Your task to perform on an android device: turn vacation reply on in the gmail app Image 0: 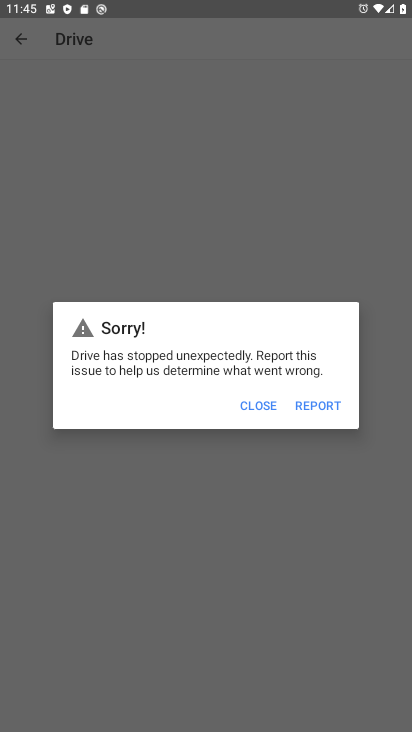
Step 0: drag from (306, 585) to (179, 96)
Your task to perform on an android device: turn vacation reply on in the gmail app Image 1: 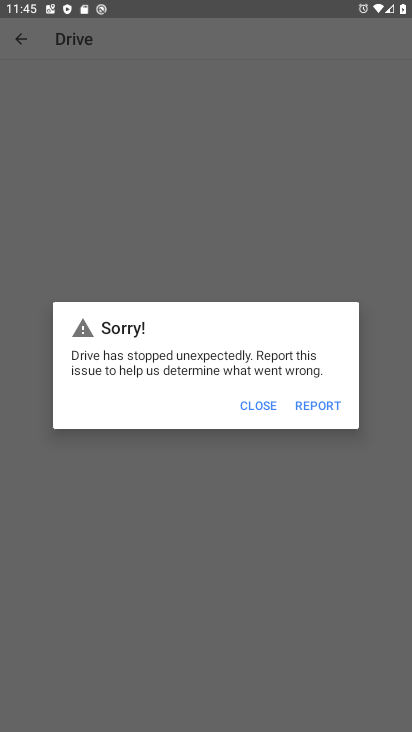
Step 1: press home button
Your task to perform on an android device: turn vacation reply on in the gmail app Image 2: 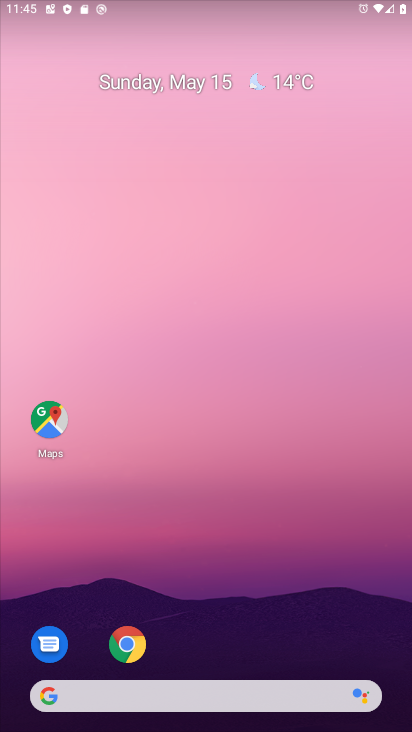
Step 2: drag from (284, 611) to (157, 107)
Your task to perform on an android device: turn vacation reply on in the gmail app Image 3: 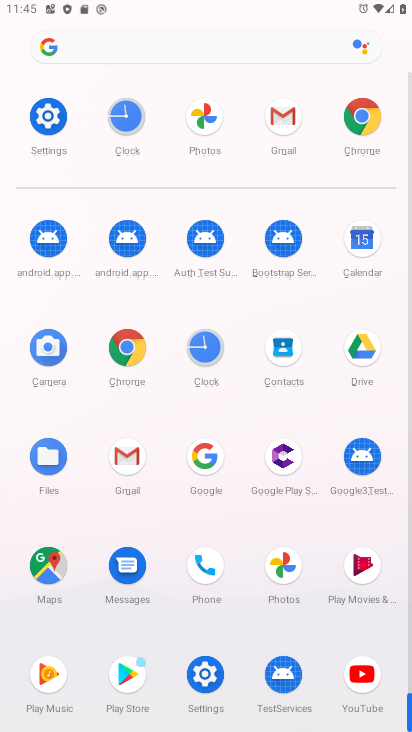
Step 3: click (117, 462)
Your task to perform on an android device: turn vacation reply on in the gmail app Image 4: 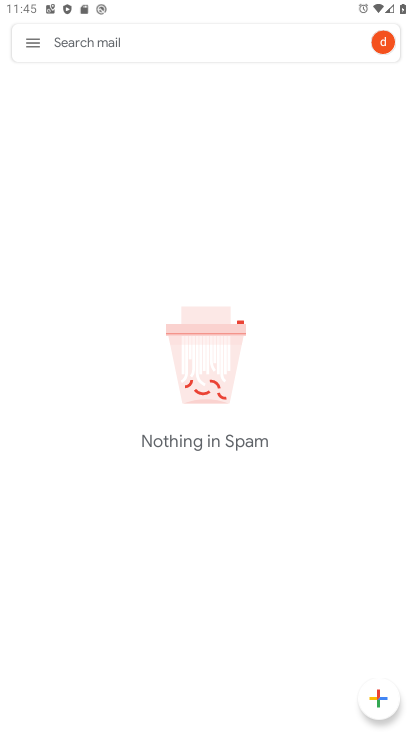
Step 4: click (25, 45)
Your task to perform on an android device: turn vacation reply on in the gmail app Image 5: 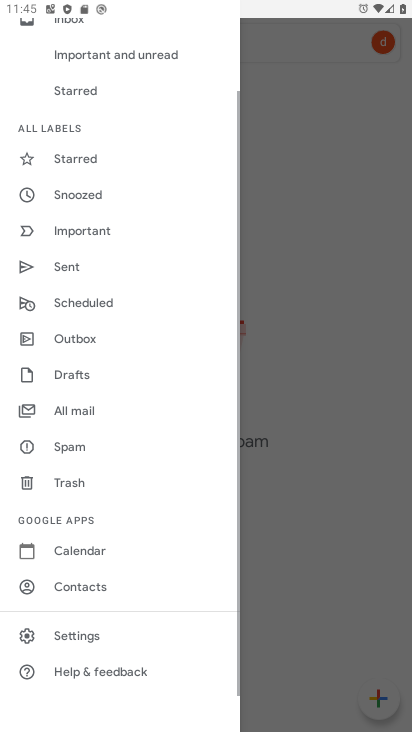
Step 5: drag from (189, 631) to (132, 288)
Your task to perform on an android device: turn vacation reply on in the gmail app Image 6: 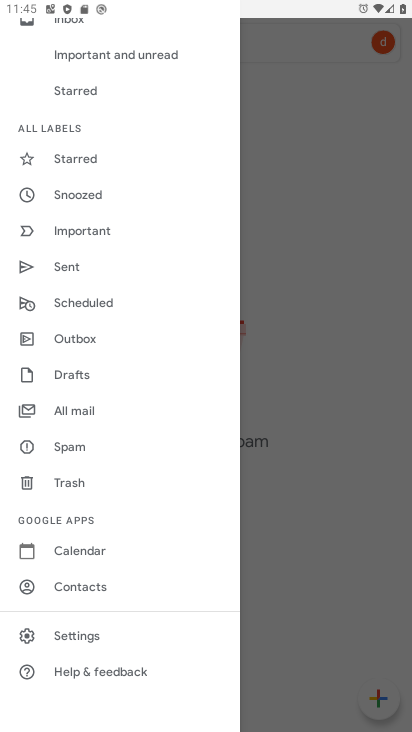
Step 6: click (106, 630)
Your task to perform on an android device: turn vacation reply on in the gmail app Image 7: 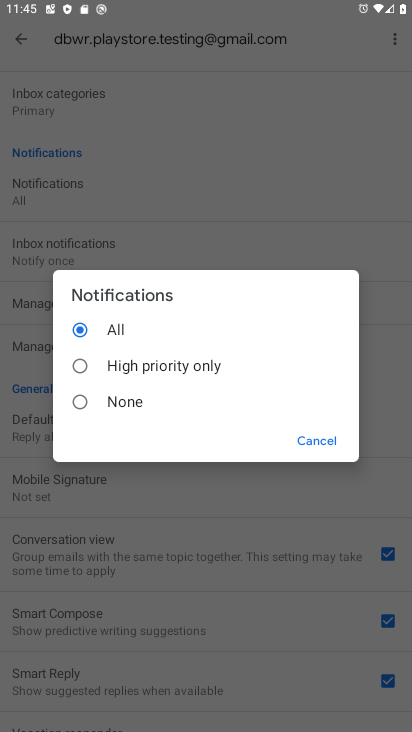
Step 7: click (311, 439)
Your task to perform on an android device: turn vacation reply on in the gmail app Image 8: 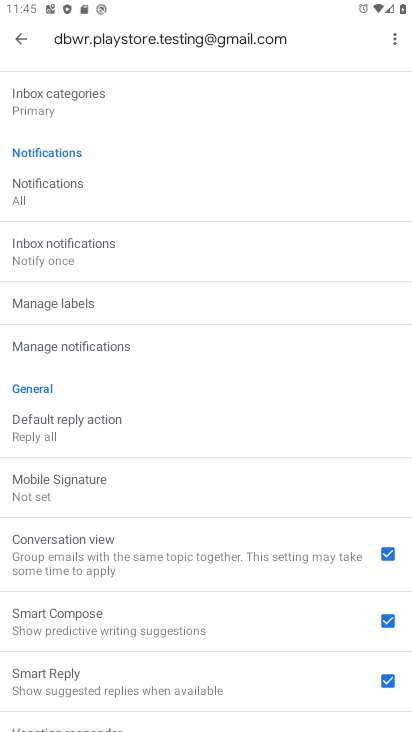
Step 8: drag from (181, 561) to (168, 84)
Your task to perform on an android device: turn vacation reply on in the gmail app Image 9: 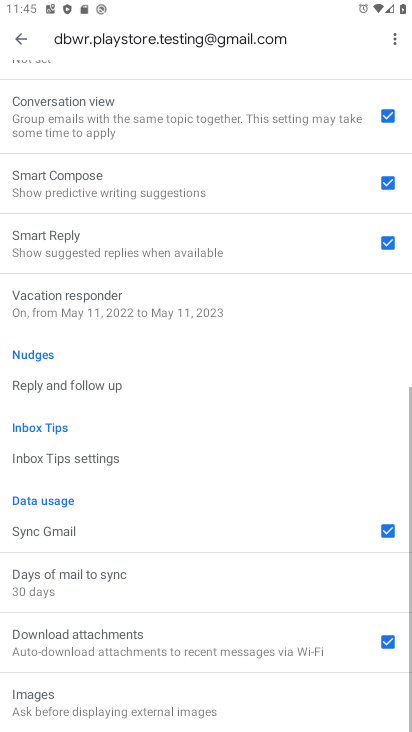
Step 9: drag from (159, 636) to (145, 415)
Your task to perform on an android device: turn vacation reply on in the gmail app Image 10: 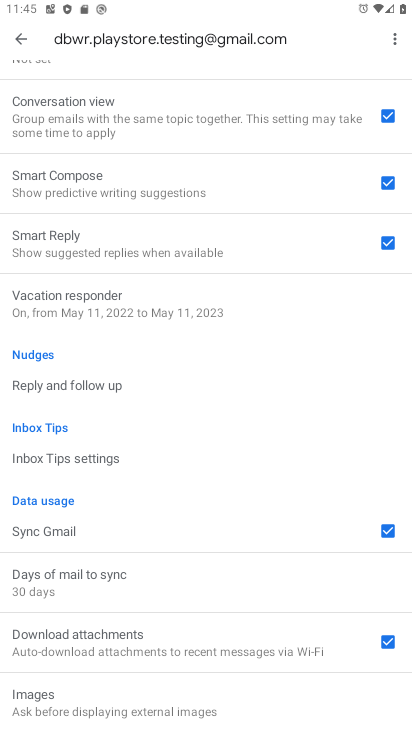
Step 10: click (108, 300)
Your task to perform on an android device: turn vacation reply on in the gmail app Image 11: 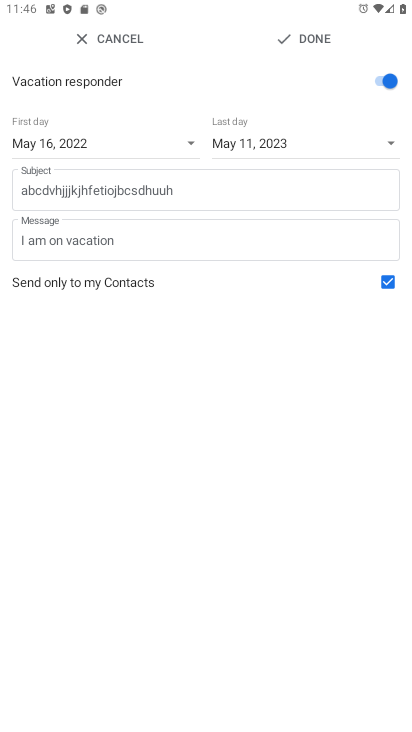
Step 11: click (319, 39)
Your task to perform on an android device: turn vacation reply on in the gmail app Image 12: 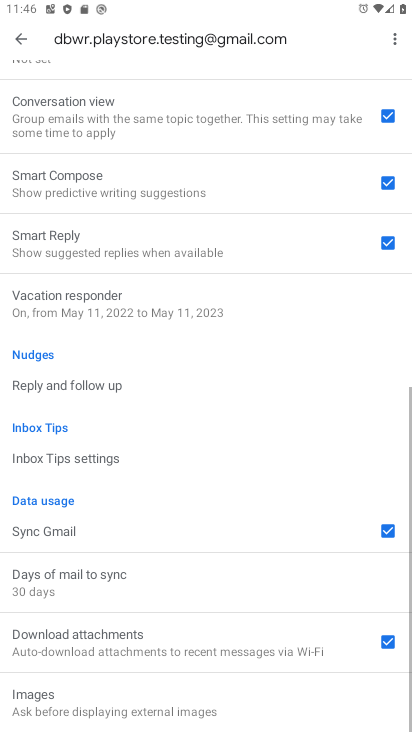
Step 12: task complete